Your task to perform on an android device: turn off javascript in the chrome app Image 0: 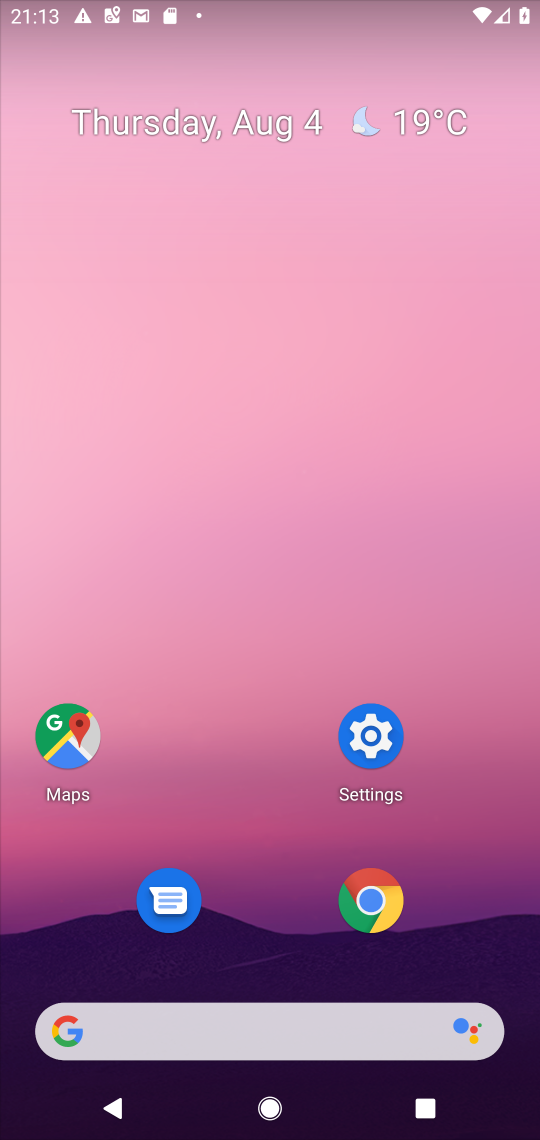
Step 0: click (370, 744)
Your task to perform on an android device: turn off javascript in the chrome app Image 1: 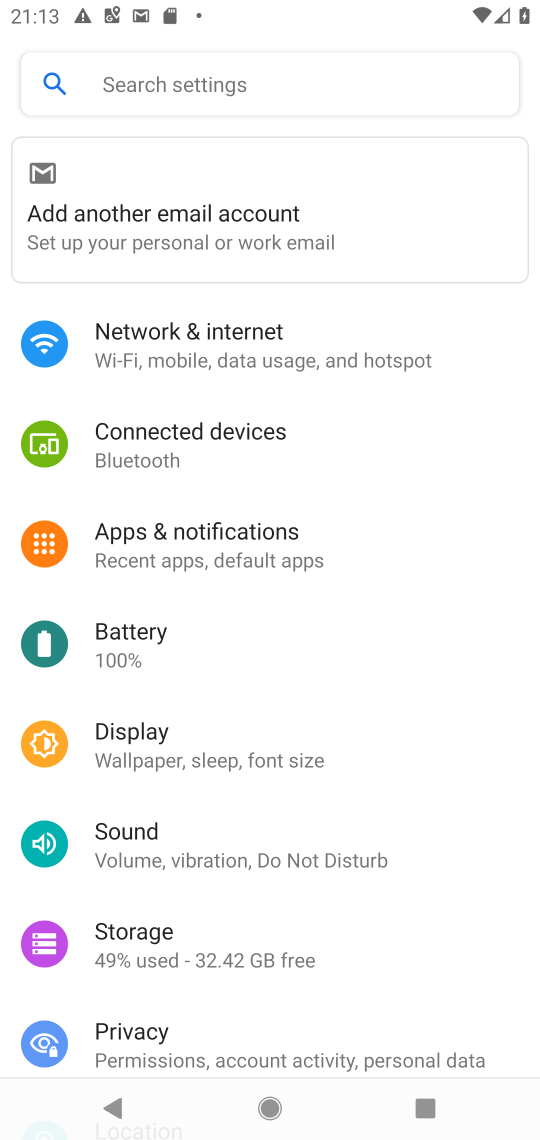
Step 1: drag from (243, 909) to (283, 500)
Your task to perform on an android device: turn off javascript in the chrome app Image 2: 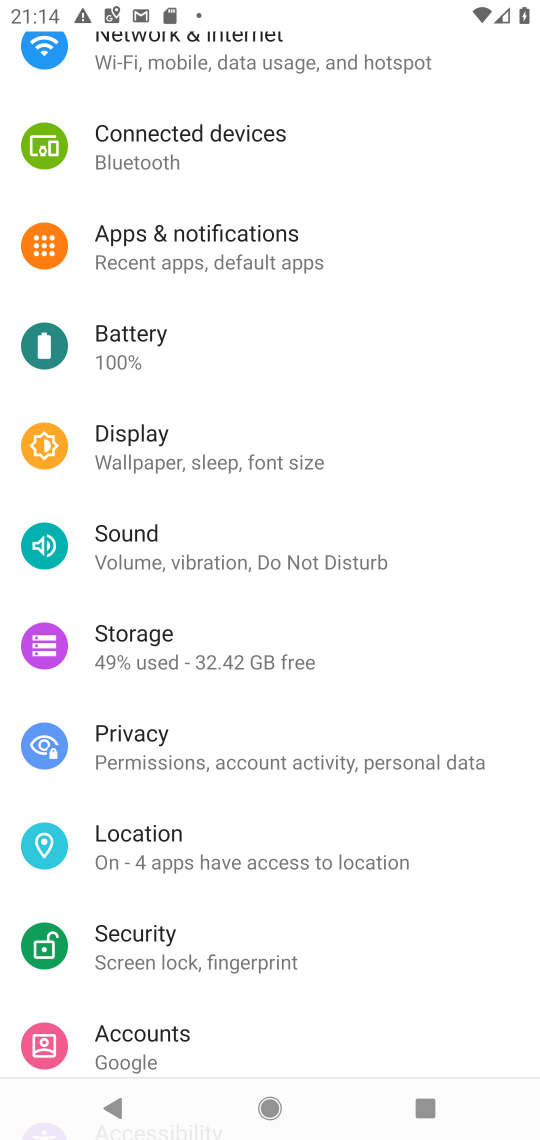
Step 2: drag from (242, 998) to (381, 438)
Your task to perform on an android device: turn off javascript in the chrome app Image 3: 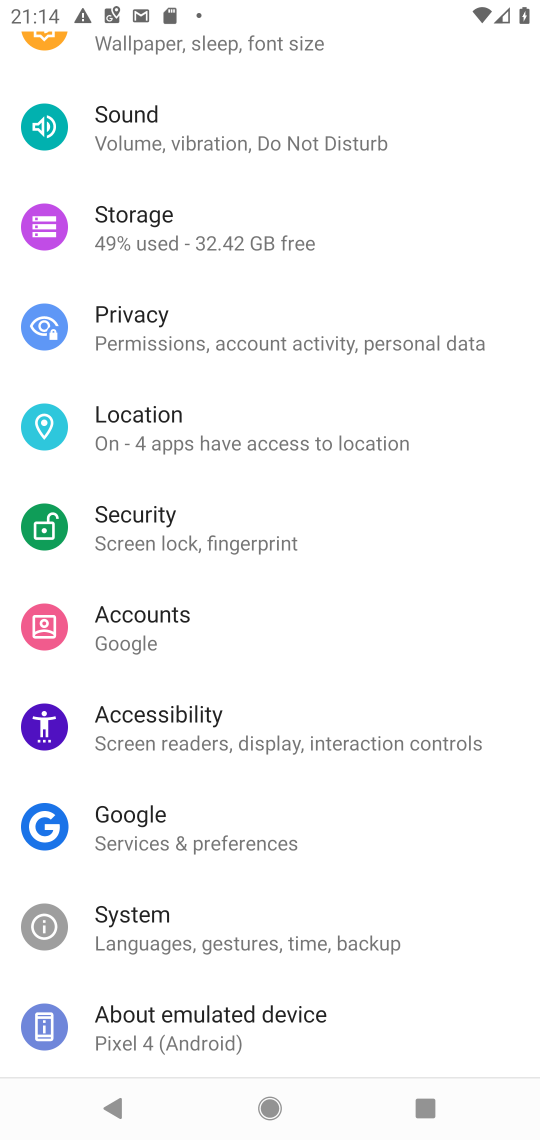
Step 3: press home button
Your task to perform on an android device: turn off javascript in the chrome app Image 4: 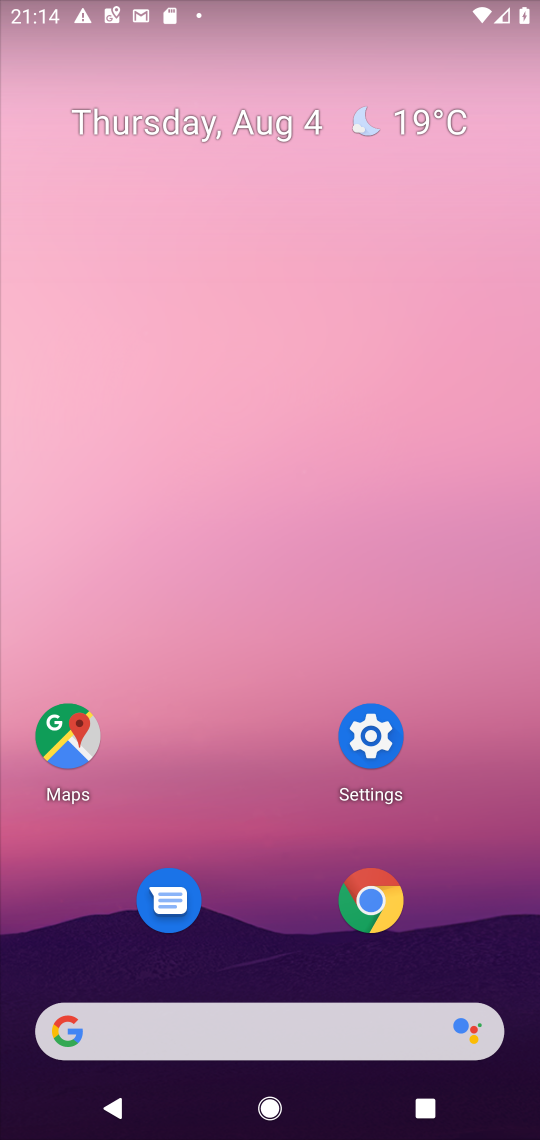
Step 4: click (376, 903)
Your task to perform on an android device: turn off javascript in the chrome app Image 5: 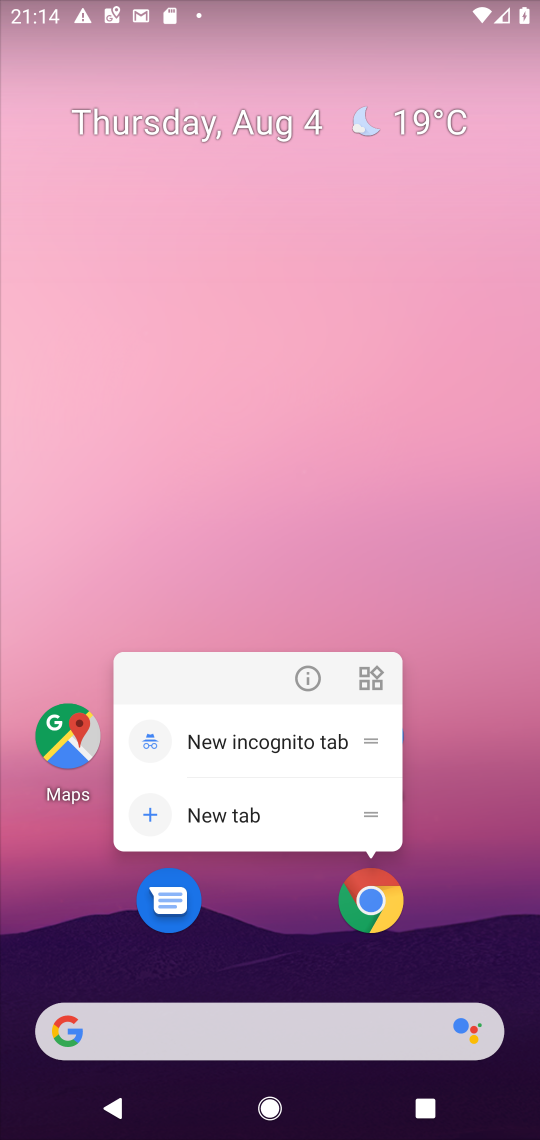
Step 5: click (376, 903)
Your task to perform on an android device: turn off javascript in the chrome app Image 6: 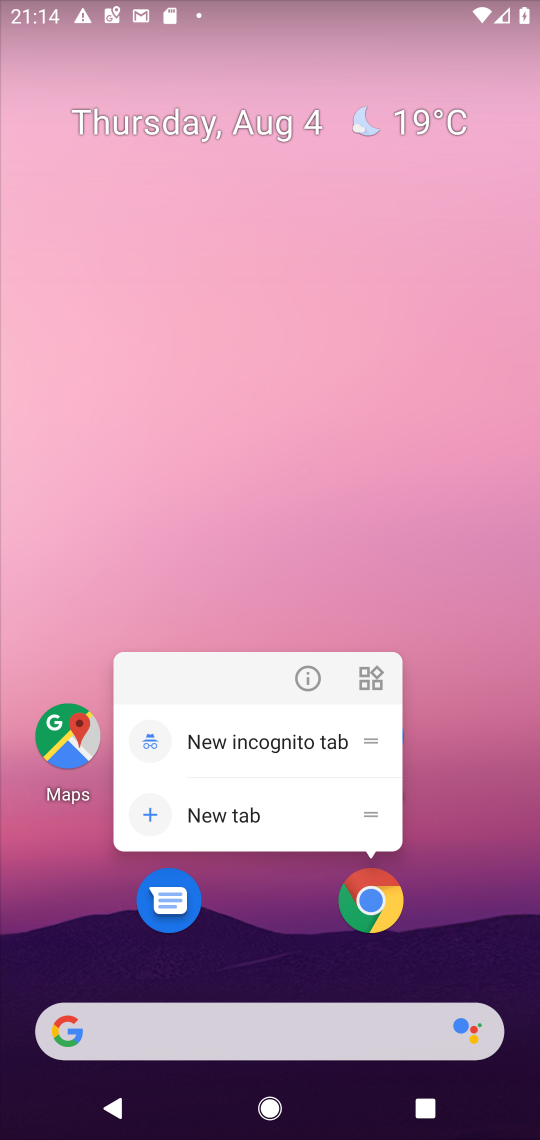
Step 6: click (376, 903)
Your task to perform on an android device: turn off javascript in the chrome app Image 7: 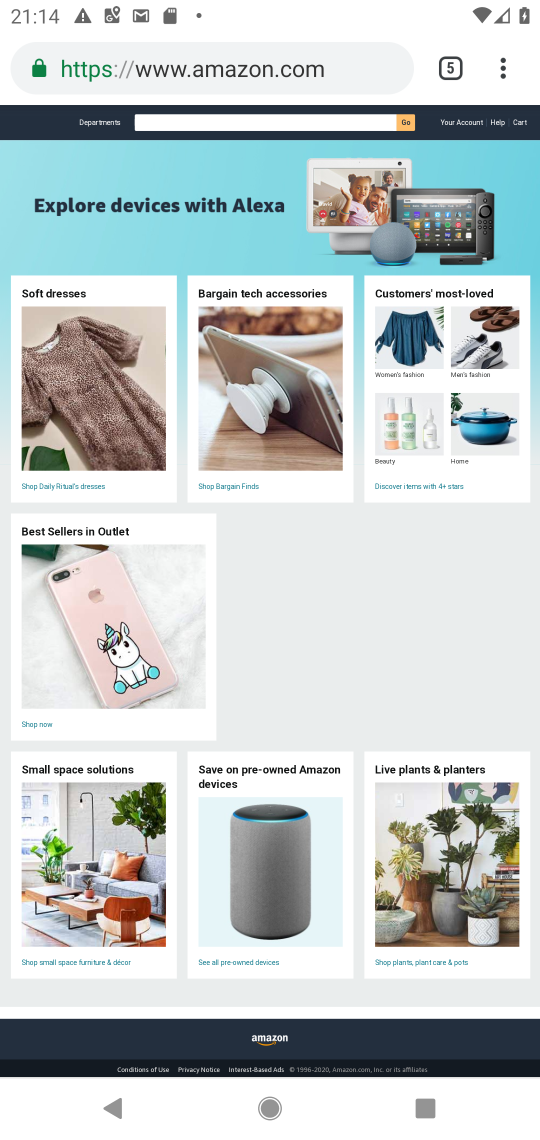
Step 7: drag from (500, 65) to (309, 891)
Your task to perform on an android device: turn off javascript in the chrome app Image 8: 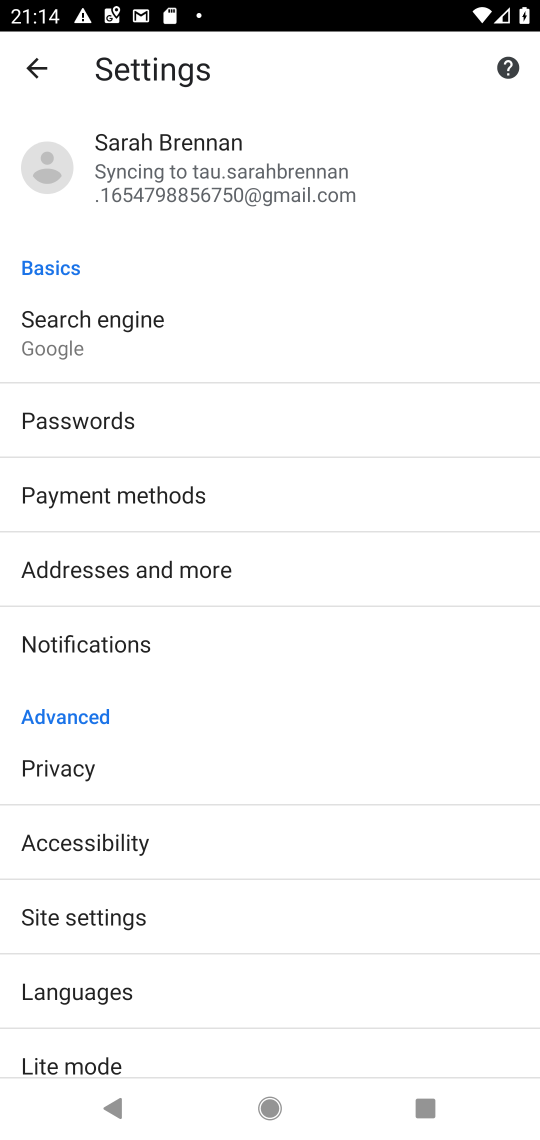
Step 8: drag from (149, 992) to (313, 527)
Your task to perform on an android device: turn off javascript in the chrome app Image 9: 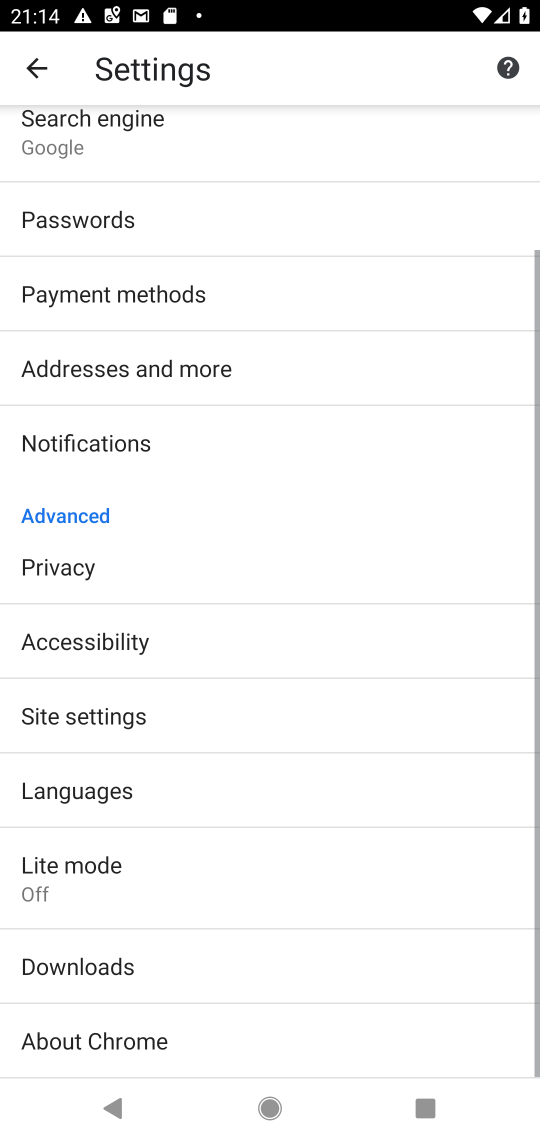
Step 9: click (157, 711)
Your task to perform on an android device: turn off javascript in the chrome app Image 10: 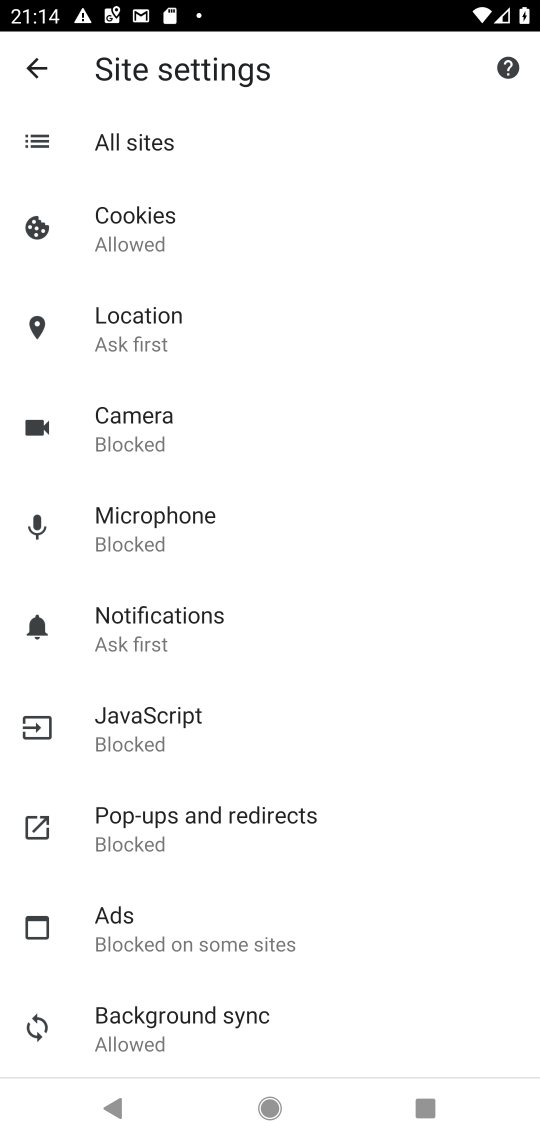
Step 10: click (157, 712)
Your task to perform on an android device: turn off javascript in the chrome app Image 11: 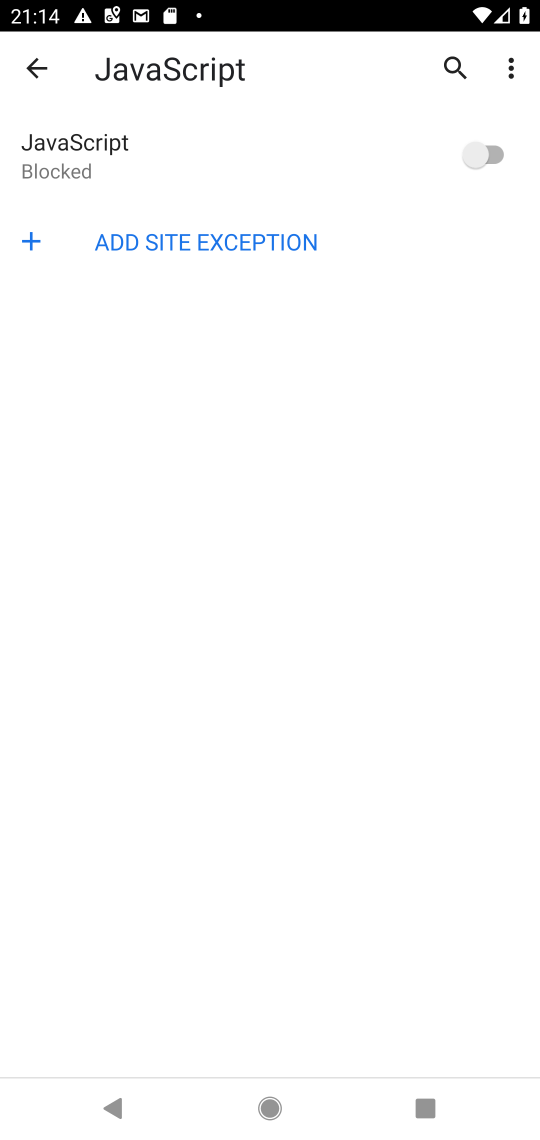
Step 11: task complete